Your task to perform on an android device: toggle show notifications on the lock screen Image 0: 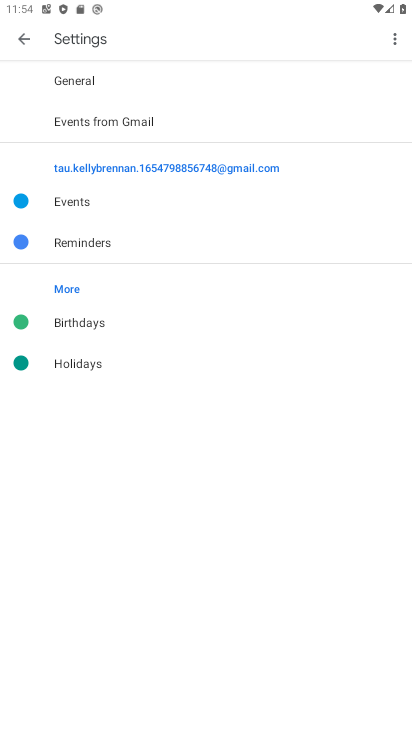
Step 0: press home button
Your task to perform on an android device: toggle show notifications on the lock screen Image 1: 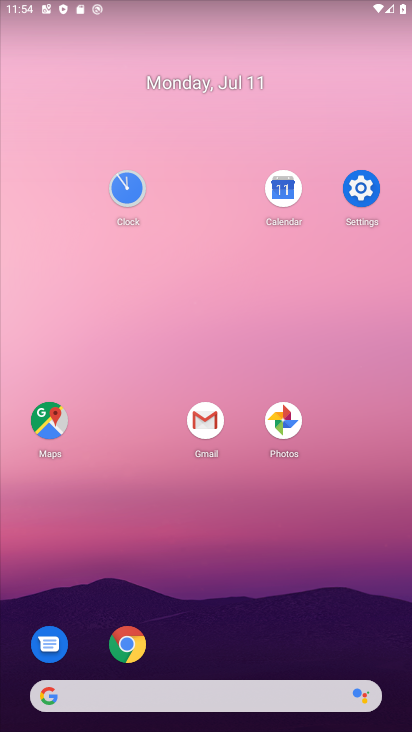
Step 1: click (351, 182)
Your task to perform on an android device: toggle show notifications on the lock screen Image 2: 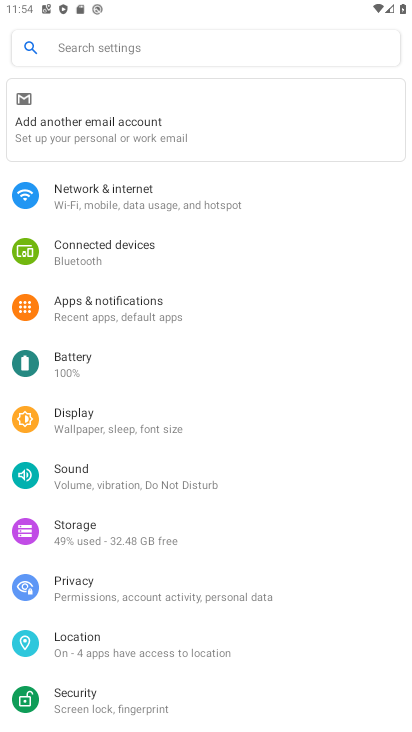
Step 2: click (166, 324)
Your task to perform on an android device: toggle show notifications on the lock screen Image 3: 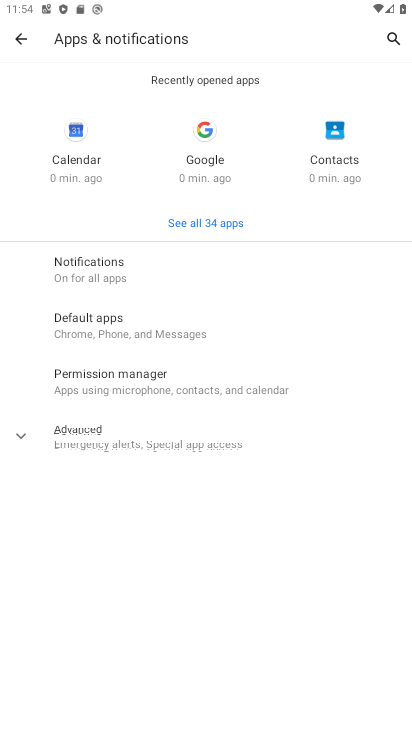
Step 3: click (155, 251)
Your task to perform on an android device: toggle show notifications on the lock screen Image 4: 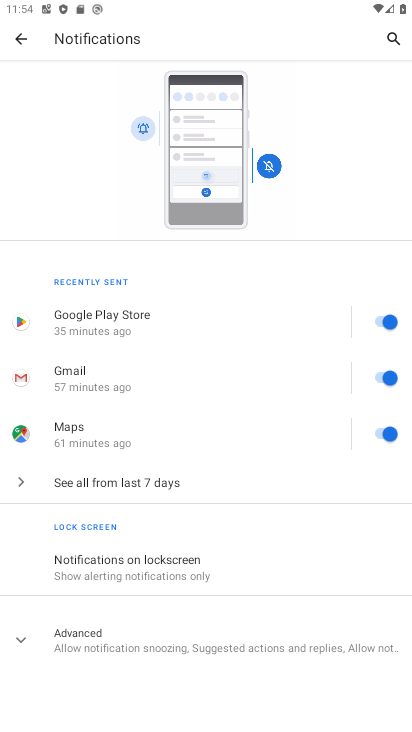
Step 4: click (204, 565)
Your task to perform on an android device: toggle show notifications on the lock screen Image 5: 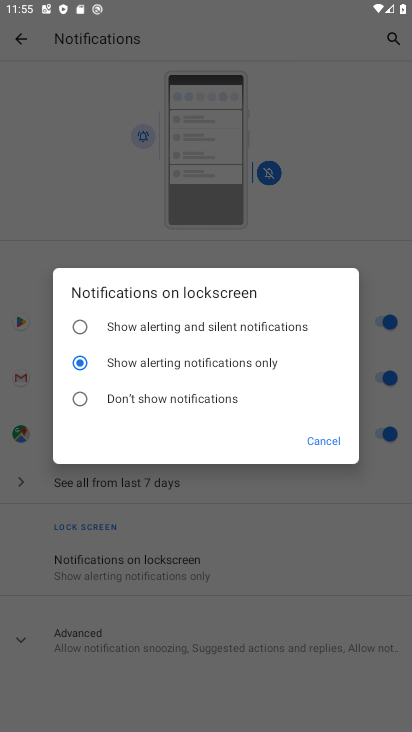
Step 5: task complete